Your task to perform on an android device: Open CNN.com Image 0: 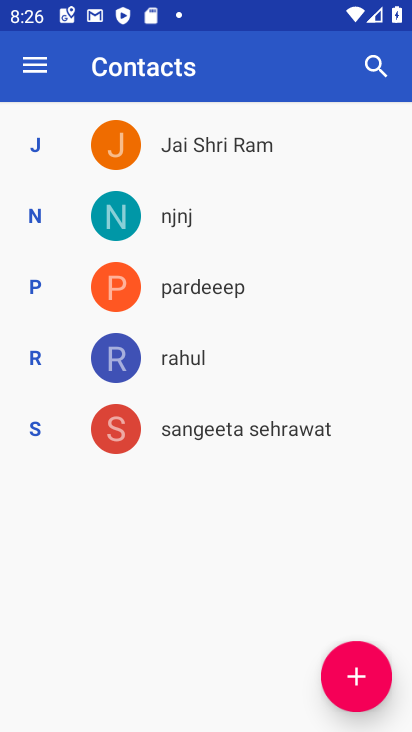
Step 0: press home button
Your task to perform on an android device: Open CNN.com Image 1: 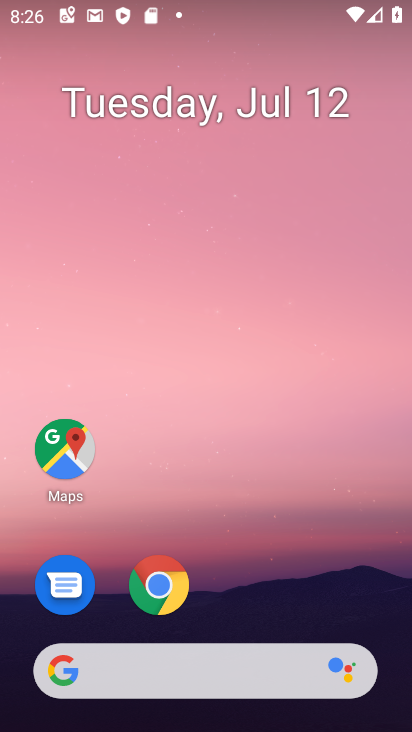
Step 1: click (228, 668)
Your task to perform on an android device: Open CNN.com Image 2: 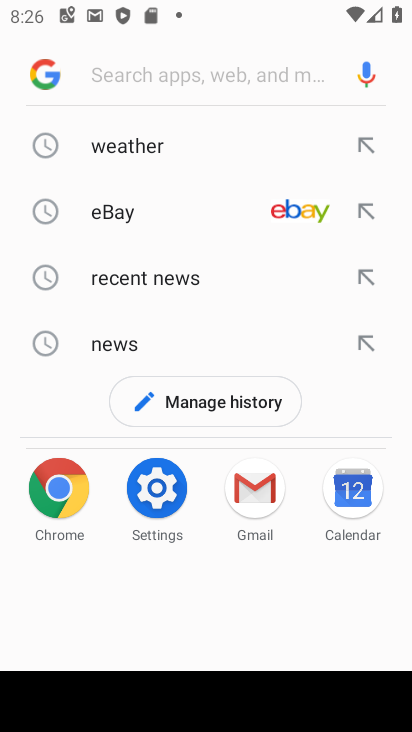
Step 2: type "cnn.com"
Your task to perform on an android device: Open CNN.com Image 3: 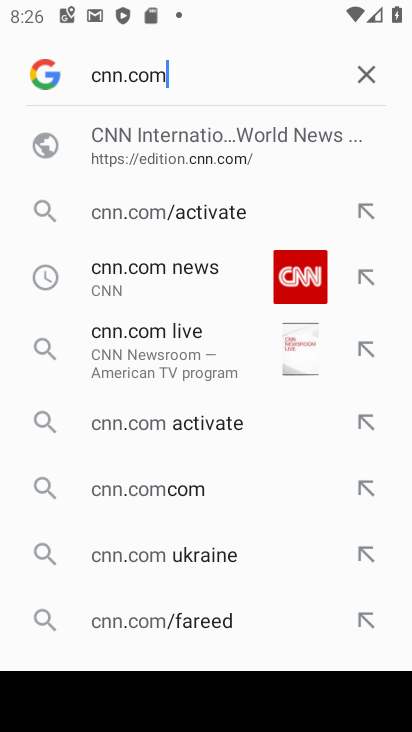
Step 3: click (114, 131)
Your task to perform on an android device: Open CNN.com Image 4: 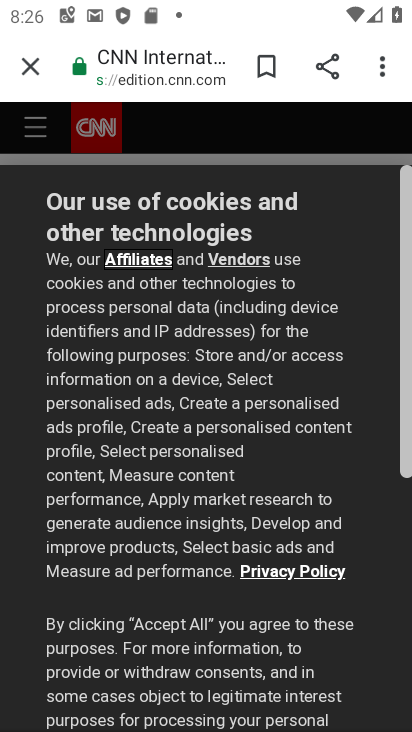
Step 4: drag from (405, 340) to (332, 728)
Your task to perform on an android device: Open CNN.com Image 5: 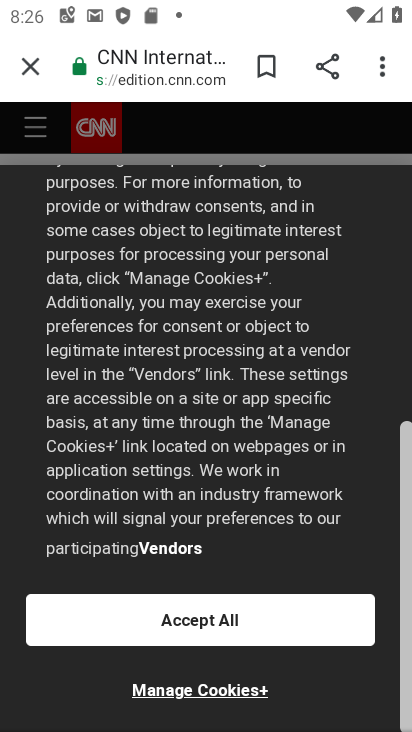
Step 5: click (265, 627)
Your task to perform on an android device: Open CNN.com Image 6: 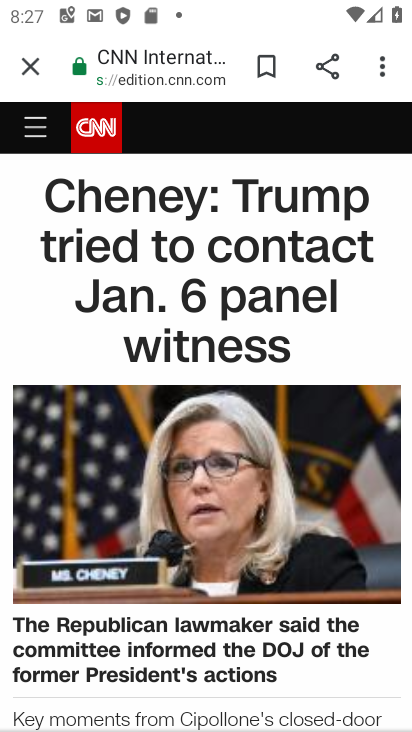
Step 6: task complete